Your task to perform on an android device: Go to Yahoo.com Image 0: 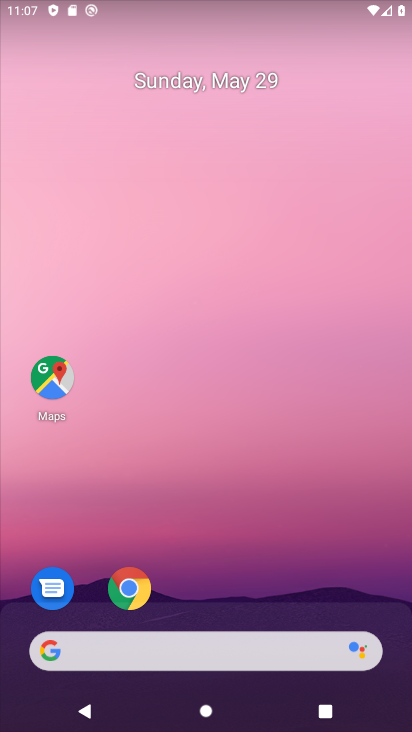
Step 0: click (131, 599)
Your task to perform on an android device: Go to Yahoo.com Image 1: 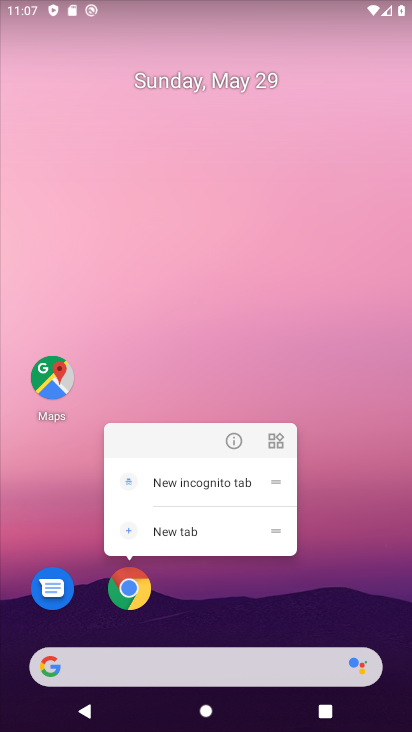
Step 1: click (132, 597)
Your task to perform on an android device: Go to Yahoo.com Image 2: 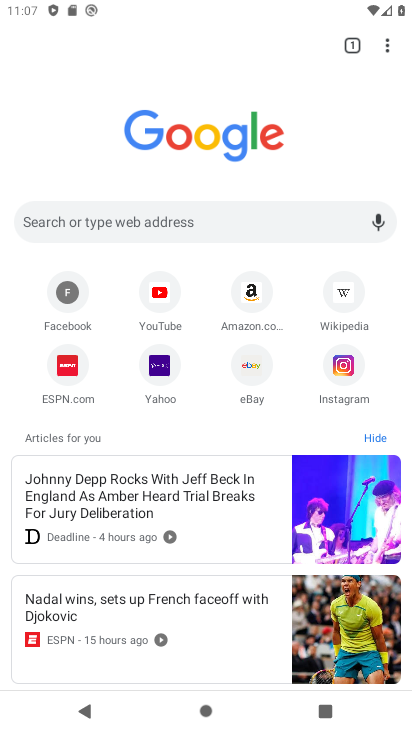
Step 2: click (157, 380)
Your task to perform on an android device: Go to Yahoo.com Image 3: 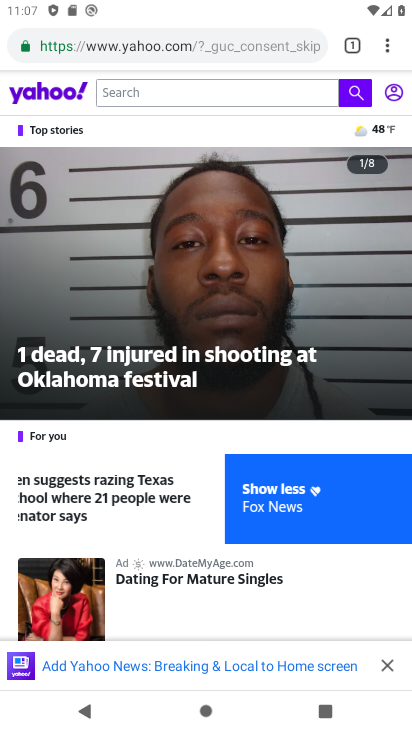
Step 3: task complete